Your task to perform on an android device: delete a single message in the gmail app Image 0: 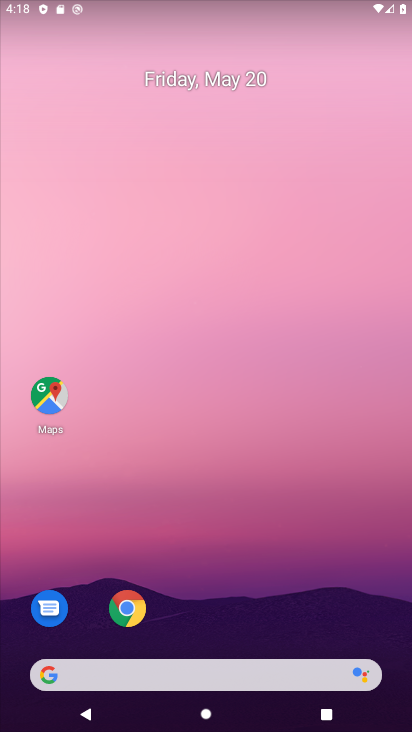
Step 0: drag from (188, 656) to (100, 89)
Your task to perform on an android device: delete a single message in the gmail app Image 1: 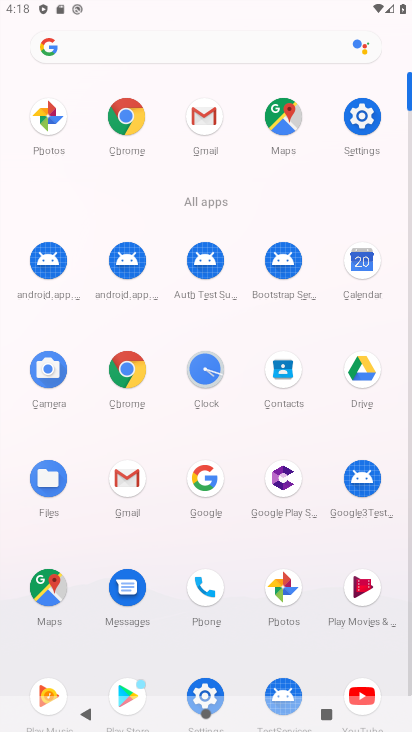
Step 1: click (126, 469)
Your task to perform on an android device: delete a single message in the gmail app Image 2: 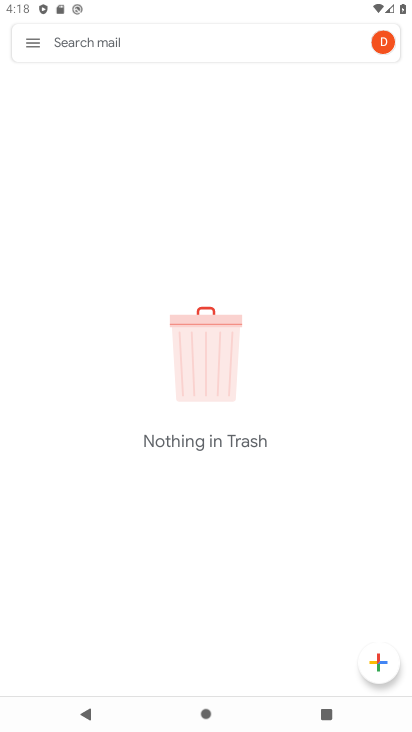
Step 2: click (25, 42)
Your task to perform on an android device: delete a single message in the gmail app Image 3: 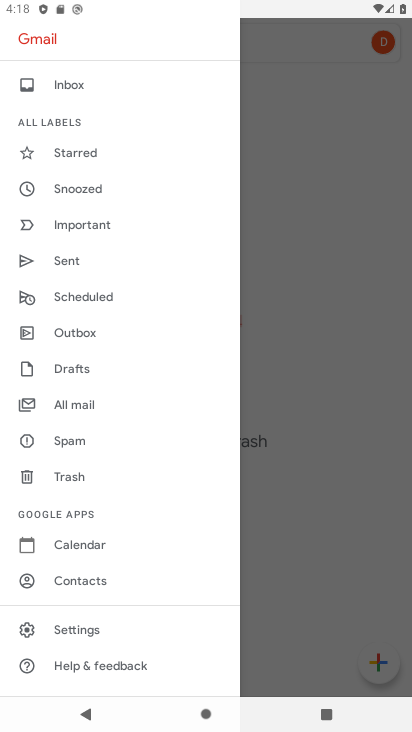
Step 3: click (85, 403)
Your task to perform on an android device: delete a single message in the gmail app Image 4: 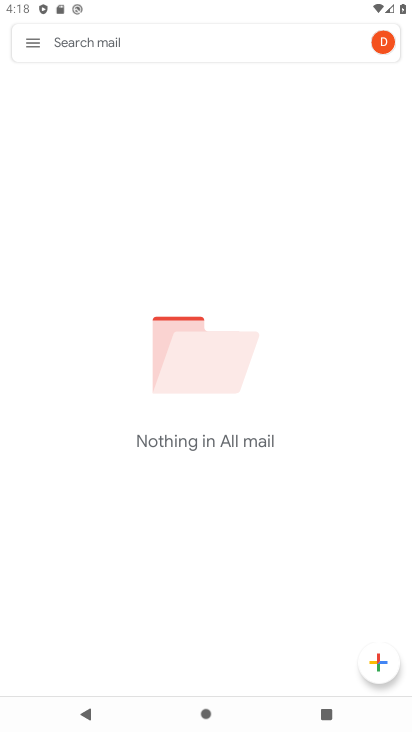
Step 4: task complete